Your task to perform on an android device: open app "Life360: Find Family & Friends" Image 0: 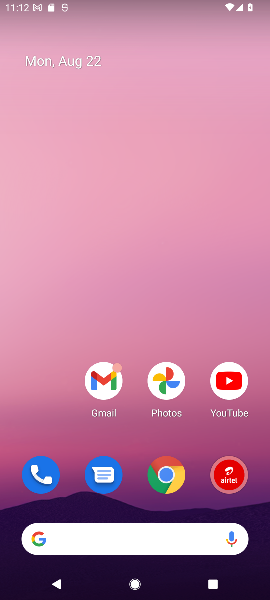
Step 0: drag from (130, 499) to (130, 156)
Your task to perform on an android device: open app "Life360: Find Family & Friends" Image 1: 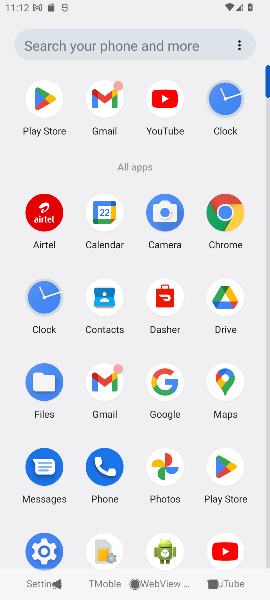
Step 1: click (39, 100)
Your task to perform on an android device: open app "Life360: Find Family & Friends" Image 2: 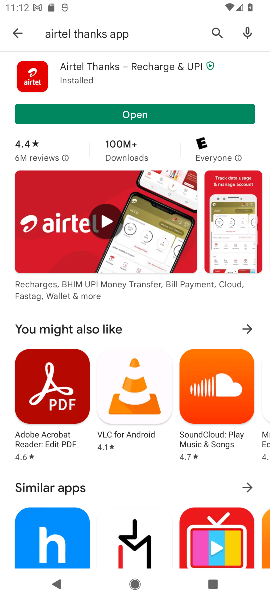
Step 2: click (20, 25)
Your task to perform on an android device: open app "Life360: Find Family & Friends" Image 3: 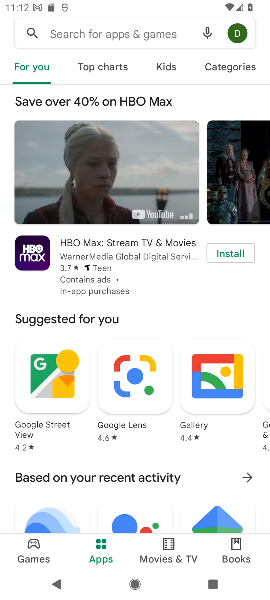
Step 3: click (91, 28)
Your task to perform on an android device: open app "Life360: Find Family & Friends" Image 4: 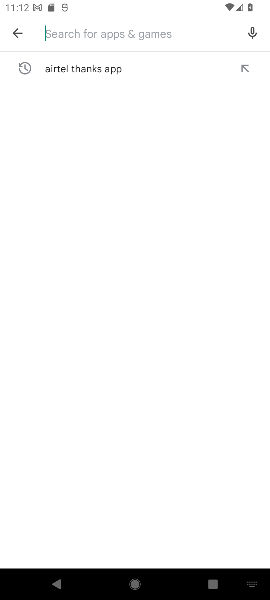
Step 4: type "Life360: Find Family & Friends"
Your task to perform on an android device: open app "Life360: Find Family & Friends" Image 5: 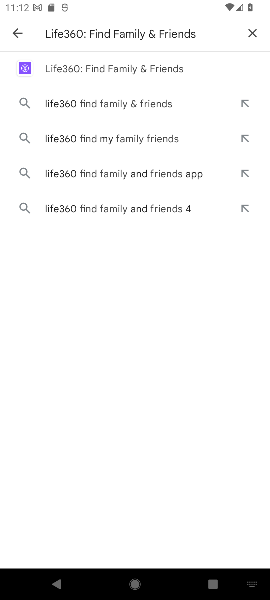
Step 5: click (105, 66)
Your task to perform on an android device: open app "Life360: Find Family & Friends" Image 6: 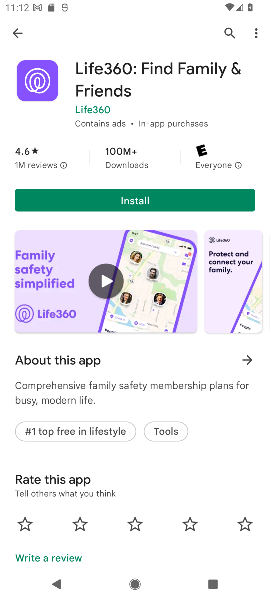
Step 6: click (134, 199)
Your task to perform on an android device: open app "Life360: Find Family & Friends" Image 7: 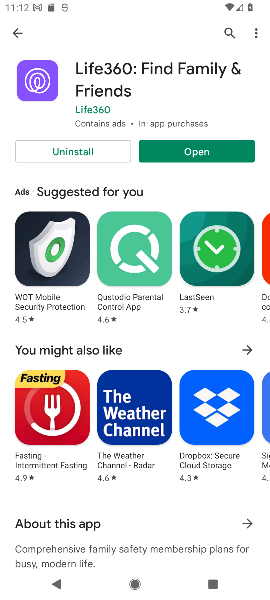
Step 7: click (204, 150)
Your task to perform on an android device: open app "Life360: Find Family & Friends" Image 8: 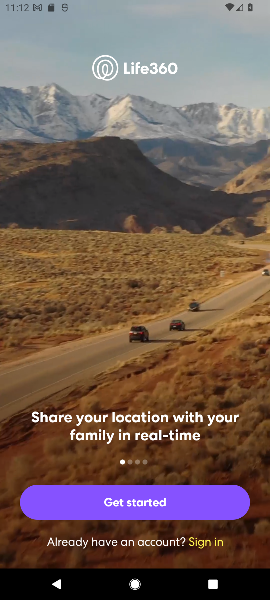
Step 8: task complete